Your task to perform on an android device: Open battery settings Image 0: 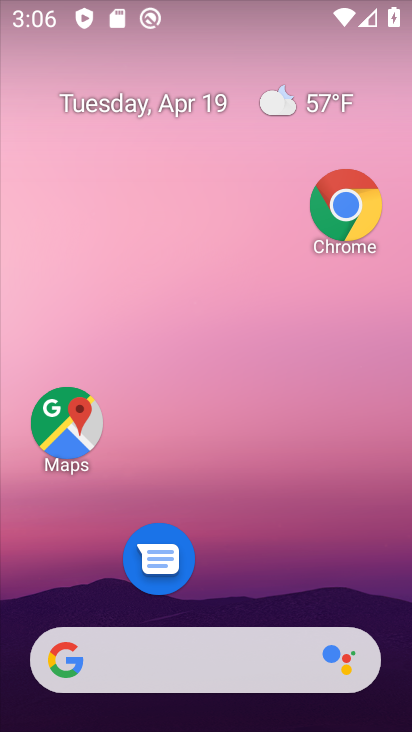
Step 0: drag from (253, 590) to (287, 154)
Your task to perform on an android device: Open battery settings Image 1: 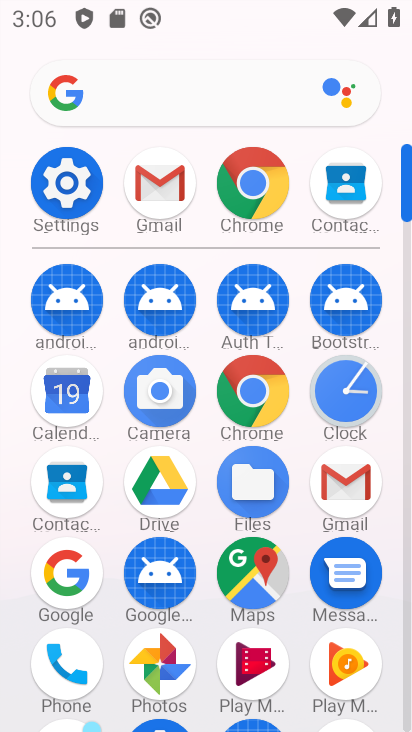
Step 1: drag from (194, 610) to (197, 300)
Your task to perform on an android device: Open battery settings Image 2: 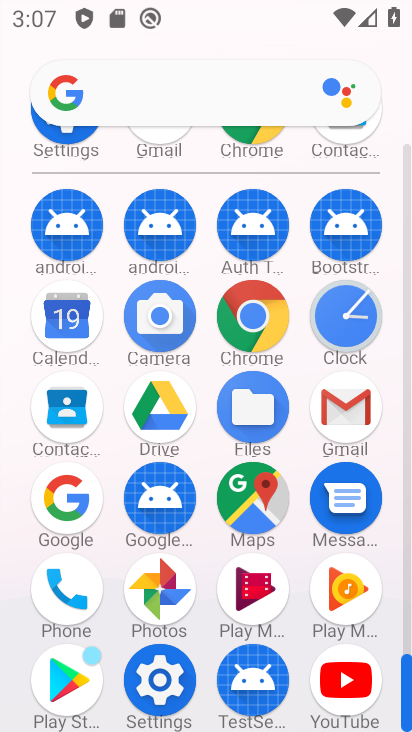
Step 2: click (167, 680)
Your task to perform on an android device: Open battery settings Image 3: 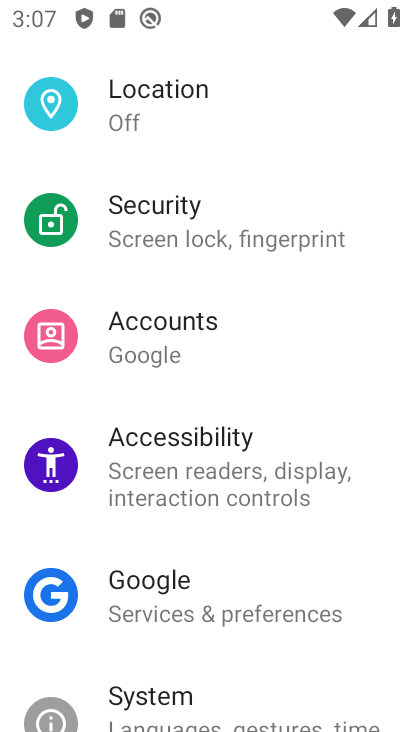
Step 3: drag from (218, 183) to (220, 575)
Your task to perform on an android device: Open battery settings Image 4: 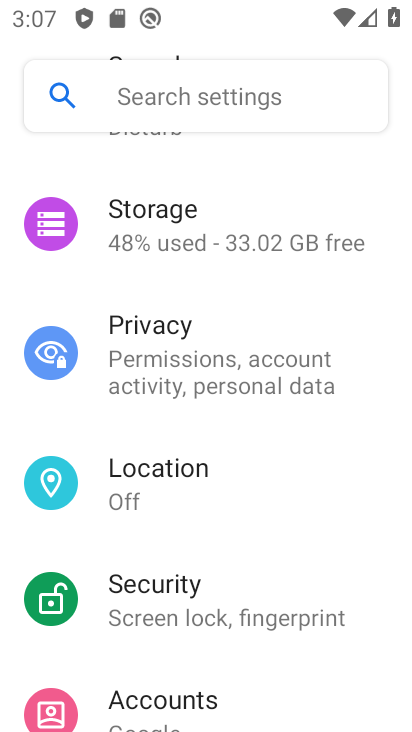
Step 4: drag from (201, 251) to (207, 495)
Your task to perform on an android device: Open battery settings Image 5: 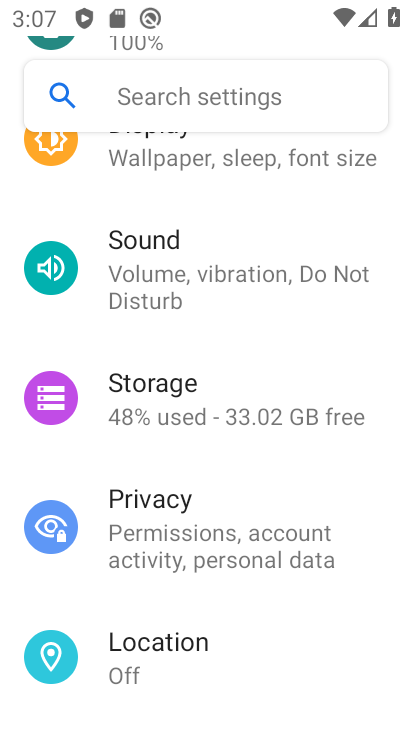
Step 5: drag from (186, 222) to (158, 531)
Your task to perform on an android device: Open battery settings Image 6: 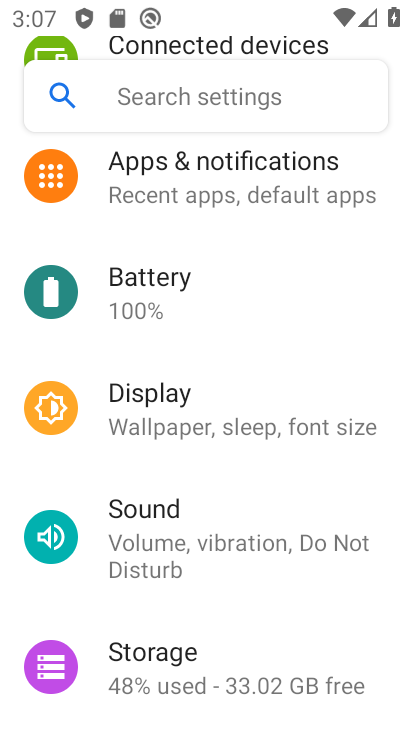
Step 6: click (120, 297)
Your task to perform on an android device: Open battery settings Image 7: 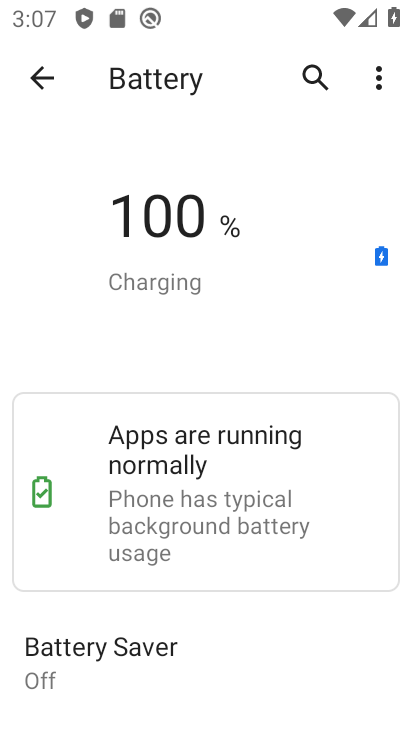
Step 7: task complete